Your task to perform on an android device: When is my next appointment? Image 0: 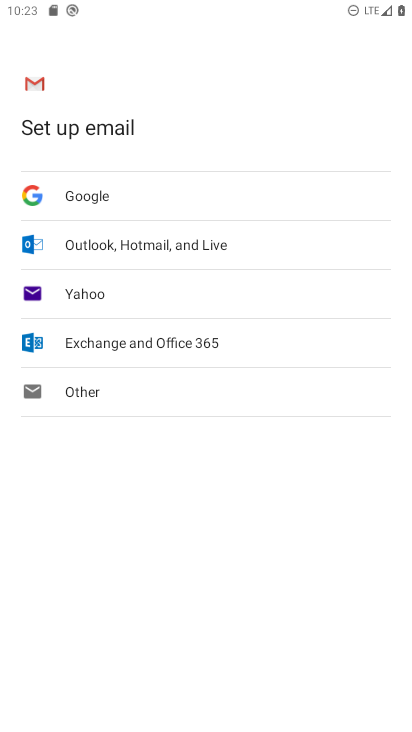
Step 0: press home button
Your task to perform on an android device: When is my next appointment? Image 1: 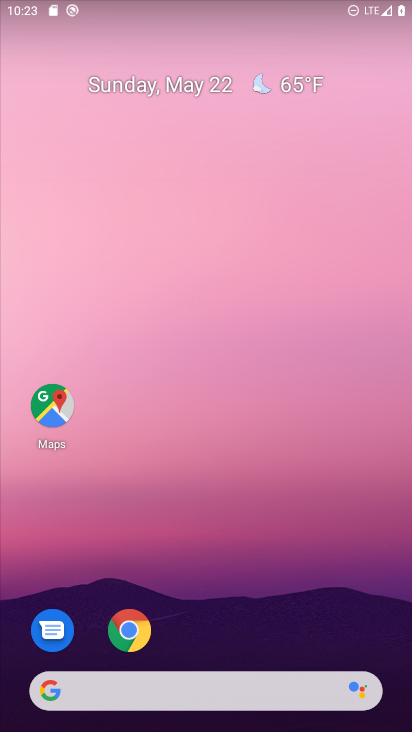
Step 1: drag from (136, 680) to (316, 130)
Your task to perform on an android device: When is my next appointment? Image 2: 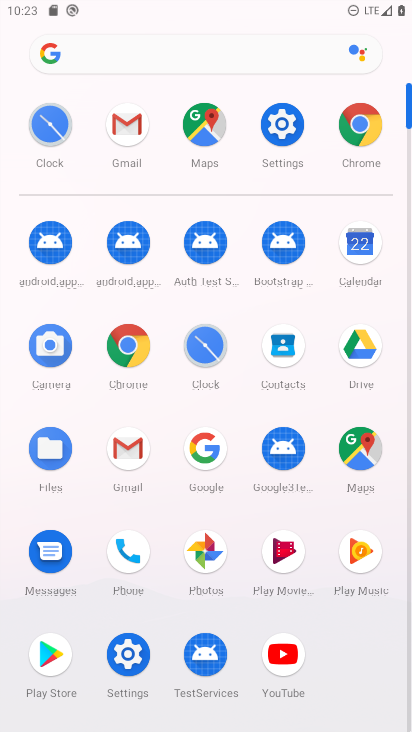
Step 2: click (368, 247)
Your task to perform on an android device: When is my next appointment? Image 3: 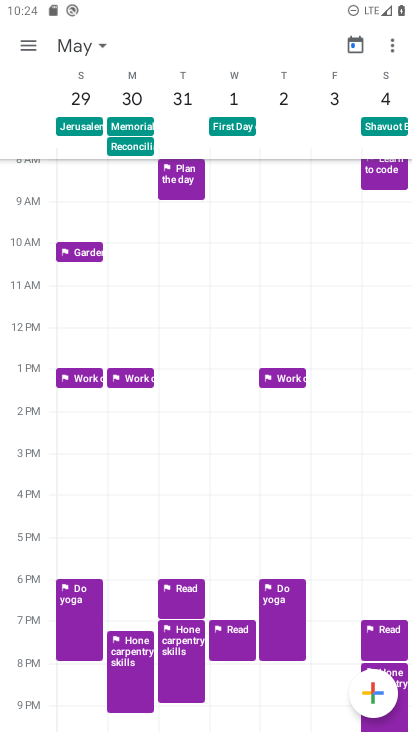
Step 3: click (83, 46)
Your task to perform on an android device: When is my next appointment? Image 4: 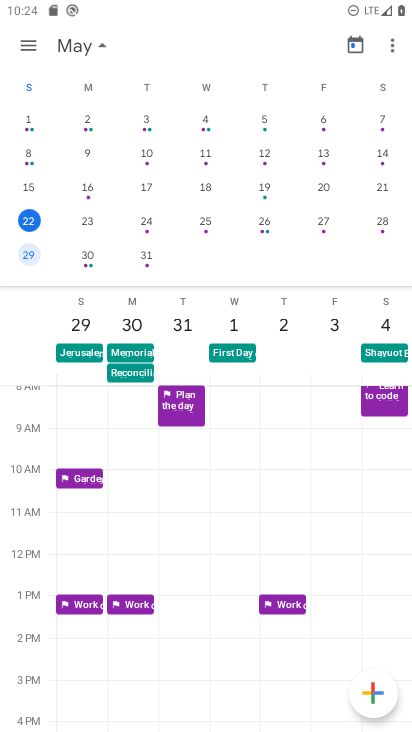
Step 4: click (35, 229)
Your task to perform on an android device: When is my next appointment? Image 5: 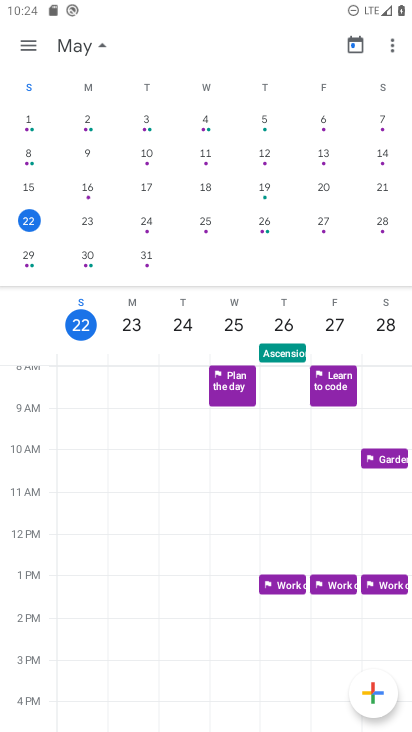
Step 5: click (28, 52)
Your task to perform on an android device: When is my next appointment? Image 6: 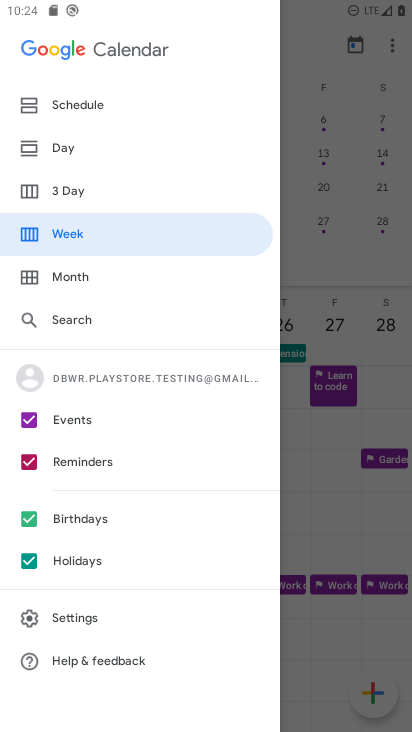
Step 6: click (98, 102)
Your task to perform on an android device: When is my next appointment? Image 7: 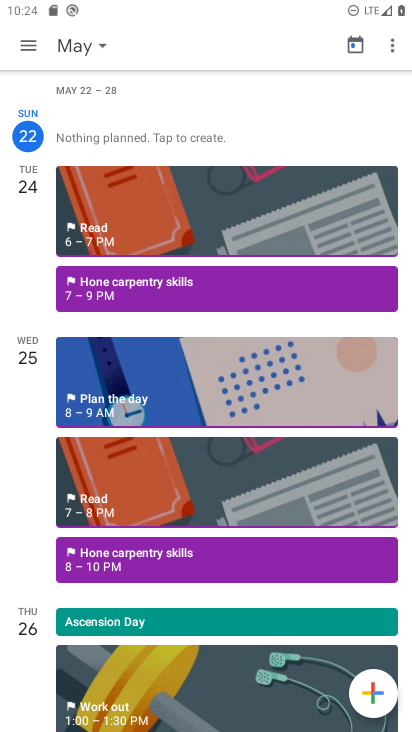
Step 7: click (161, 554)
Your task to perform on an android device: When is my next appointment? Image 8: 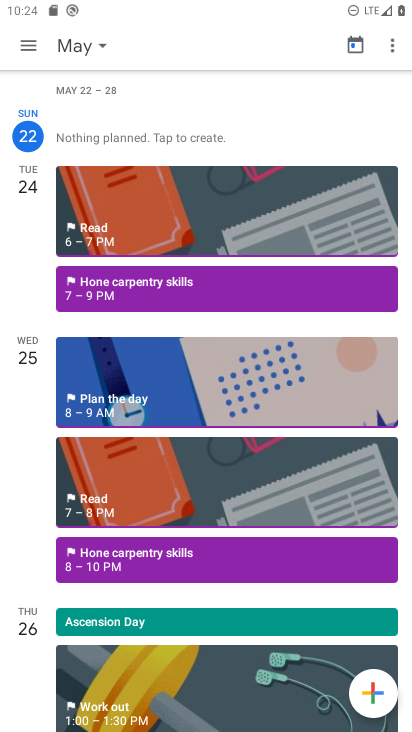
Step 8: click (161, 554)
Your task to perform on an android device: When is my next appointment? Image 9: 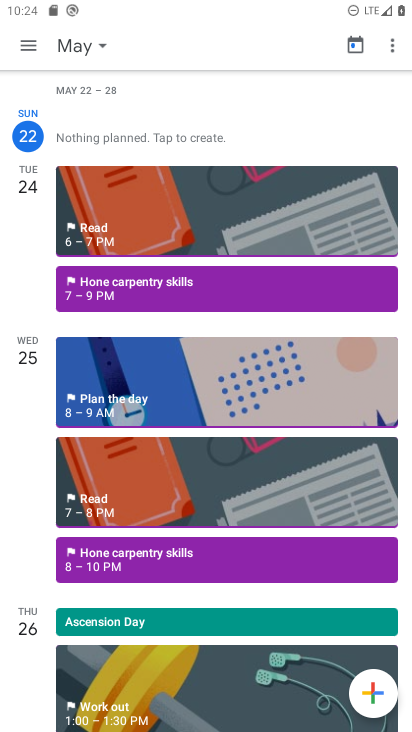
Step 9: click (127, 558)
Your task to perform on an android device: When is my next appointment? Image 10: 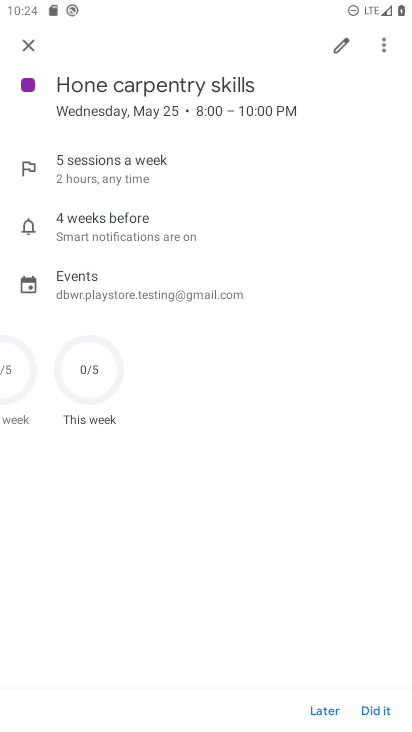
Step 10: task complete